Your task to perform on an android device: Find coffee shops on Maps Image 0: 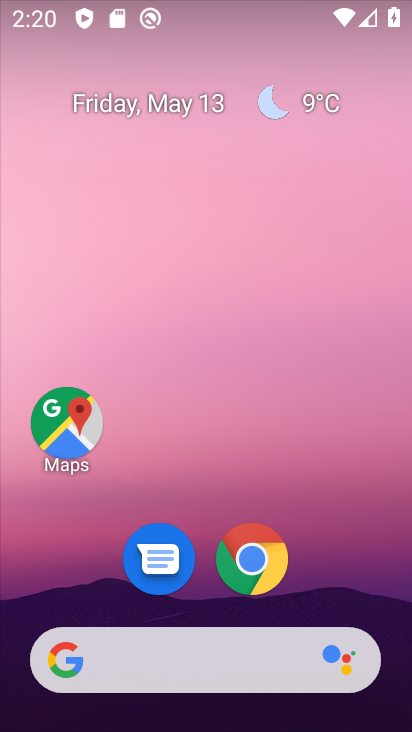
Step 0: click (65, 425)
Your task to perform on an android device: Find coffee shops on Maps Image 1: 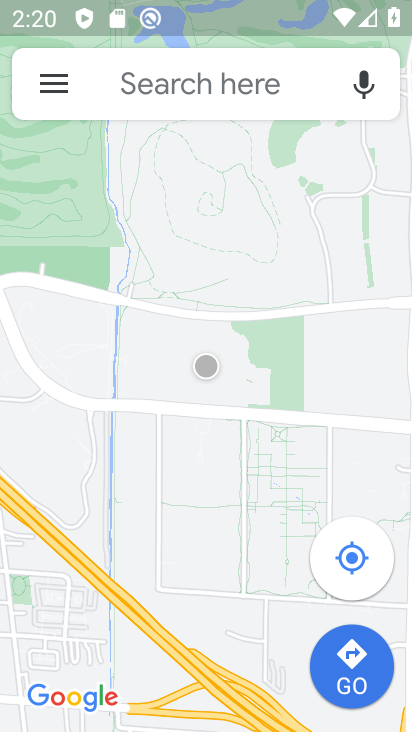
Step 1: click (193, 96)
Your task to perform on an android device: Find coffee shops on Maps Image 2: 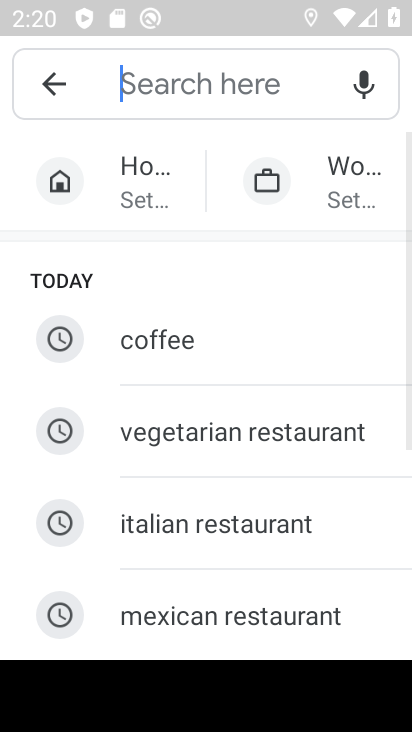
Step 2: click (220, 87)
Your task to perform on an android device: Find coffee shops on Maps Image 3: 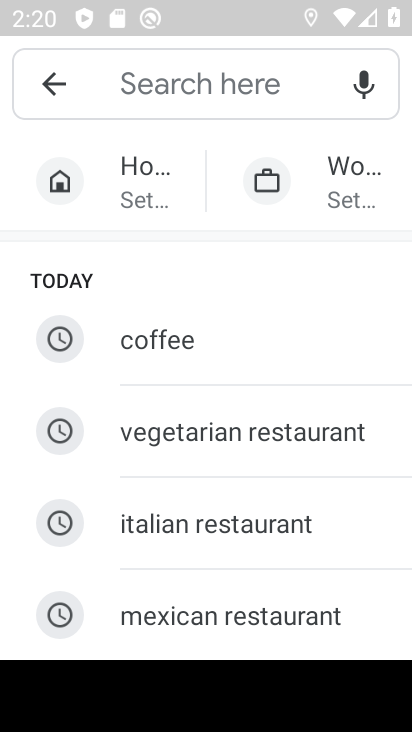
Step 3: click (158, 347)
Your task to perform on an android device: Find coffee shops on Maps Image 4: 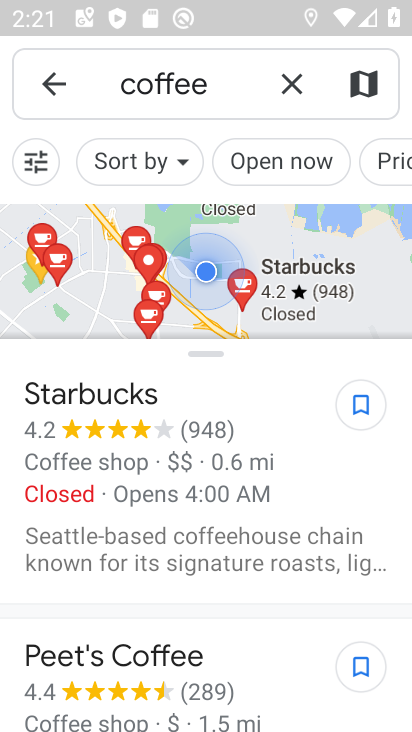
Step 4: task complete